Your task to perform on an android device: Open Google Chrome and open the bookmarks view Image 0: 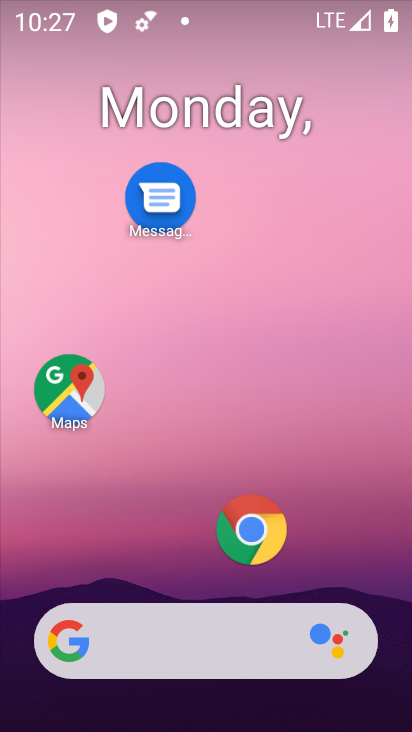
Step 0: drag from (216, 575) to (255, 214)
Your task to perform on an android device: Open Google Chrome and open the bookmarks view Image 1: 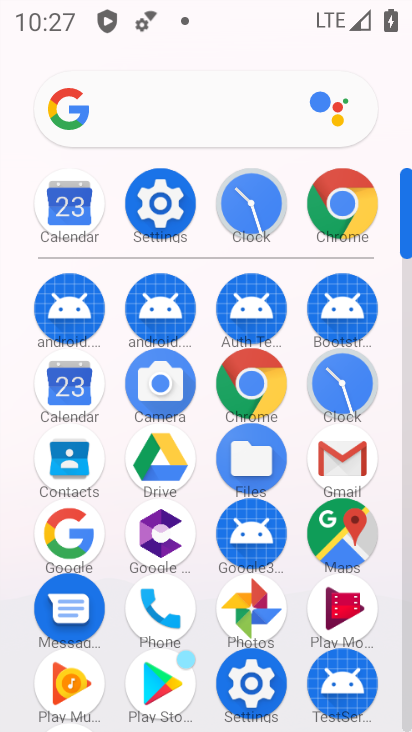
Step 1: click (257, 396)
Your task to perform on an android device: Open Google Chrome and open the bookmarks view Image 2: 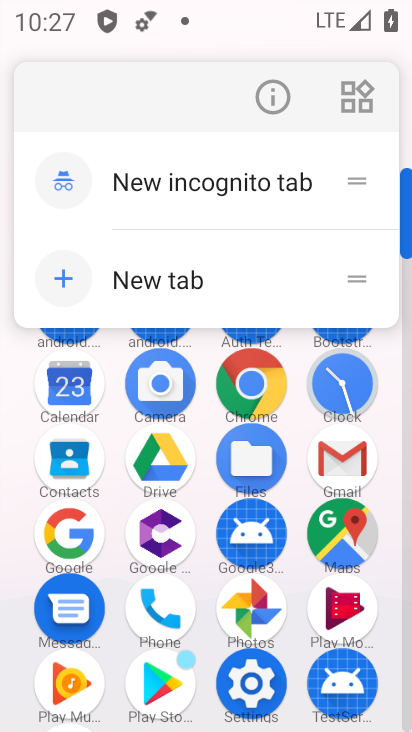
Step 2: click (256, 368)
Your task to perform on an android device: Open Google Chrome and open the bookmarks view Image 3: 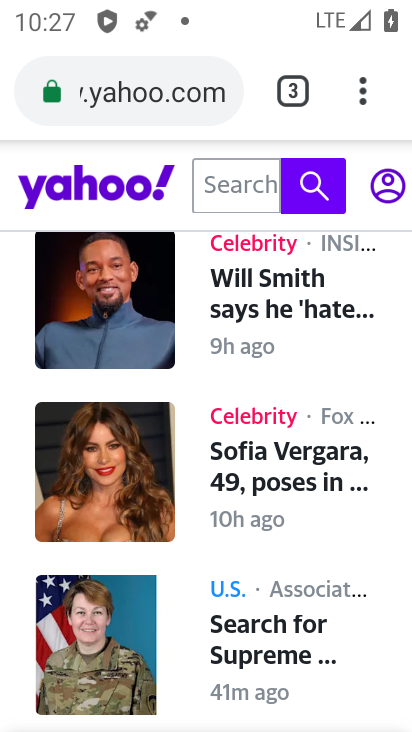
Step 3: click (360, 101)
Your task to perform on an android device: Open Google Chrome and open the bookmarks view Image 4: 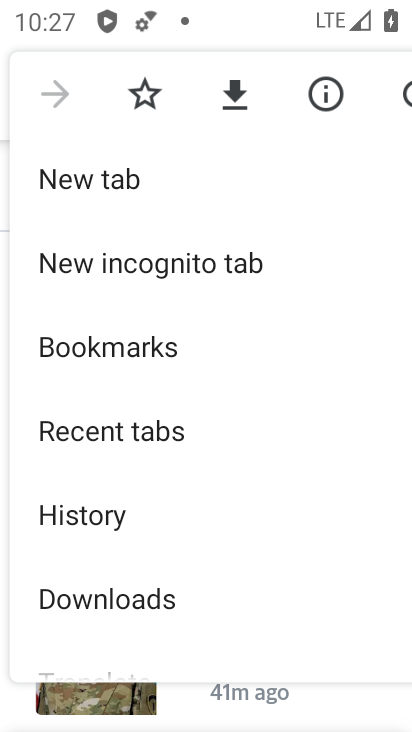
Step 4: drag from (209, 463) to (221, 418)
Your task to perform on an android device: Open Google Chrome and open the bookmarks view Image 5: 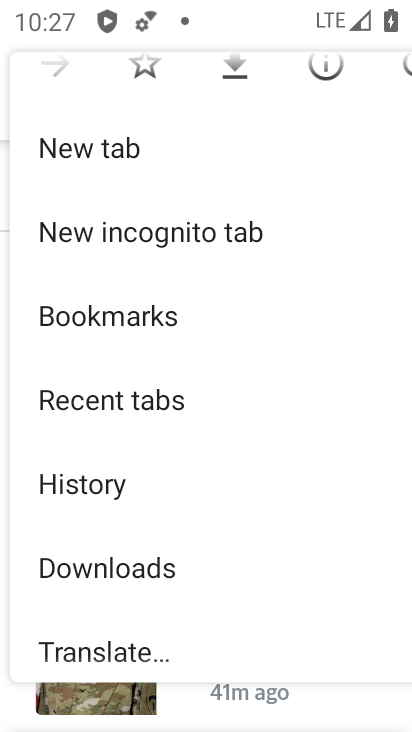
Step 5: click (163, 327)
Your task to perform on an android device: Open Google Chrome and open the bookmarks view Image 6: 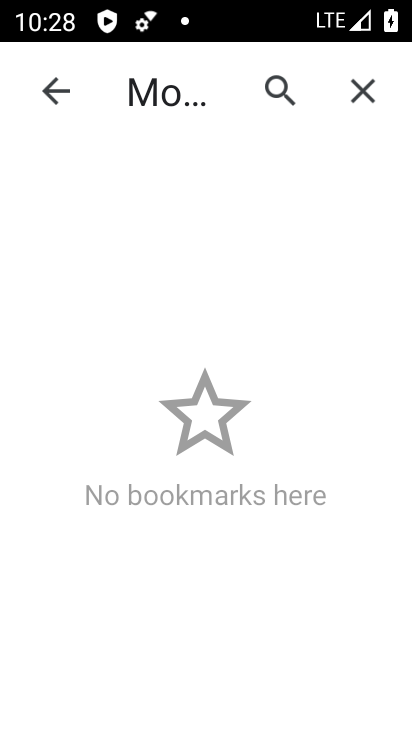
Step 6: task complete